Your task to perform on an android device: check storage Image 0: 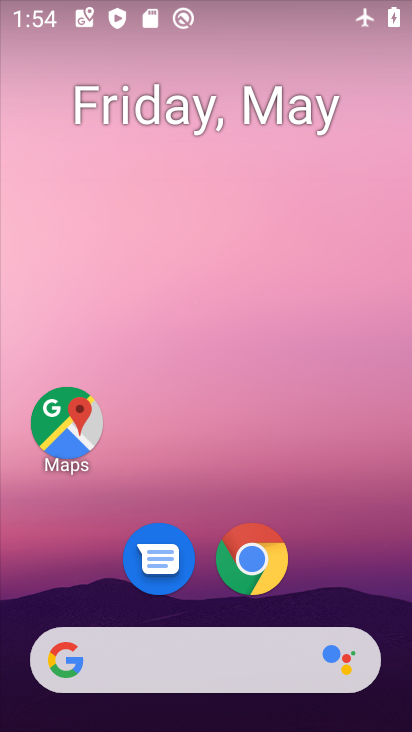
Step 0: drag from (355, 579) to (382, 164)
Your task to perform on an android device: check storage Image 1: 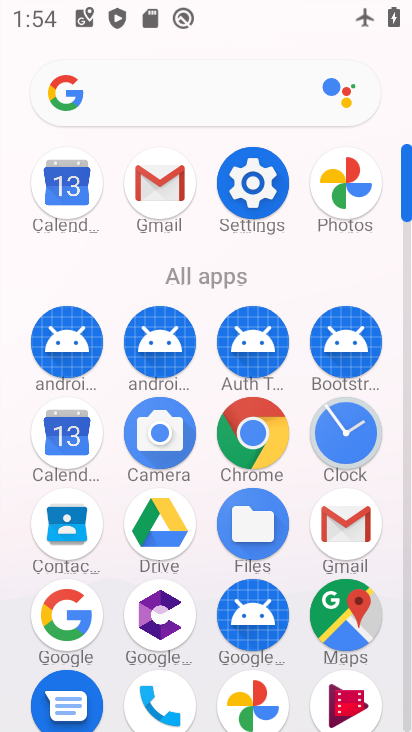
Step 1: click (265, 176)
Your task to perform on an android device: check storage Image 2: 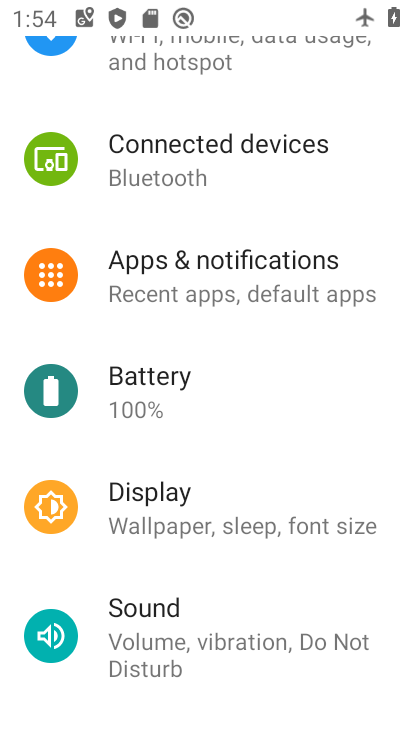
Step 2: drag from (248, 466) to (247, 201)
Your task to perform on an android device: check storage Image 3: 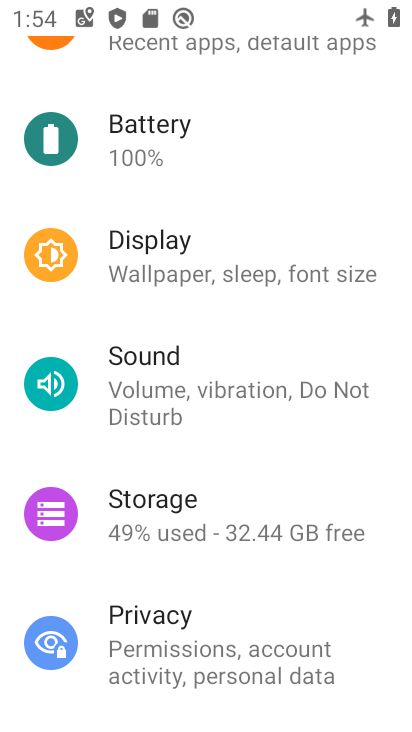
Step 3: click (182, 511)
Your task to perform on an android device: check storage Image 4: 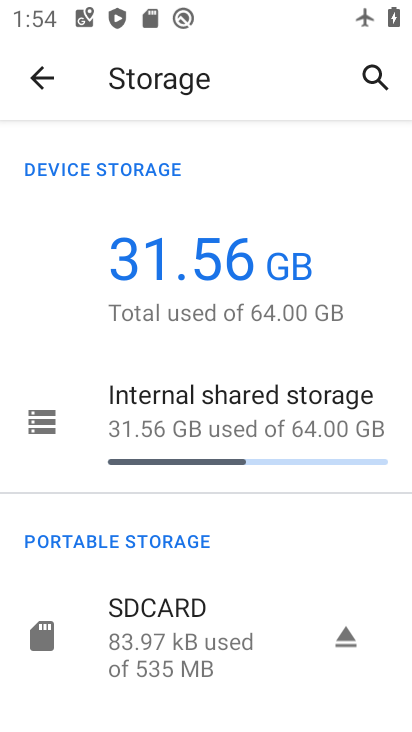
Step 4: task complete